Your task to perform on an android device: turn off smart reply in the gmail app Image 0: 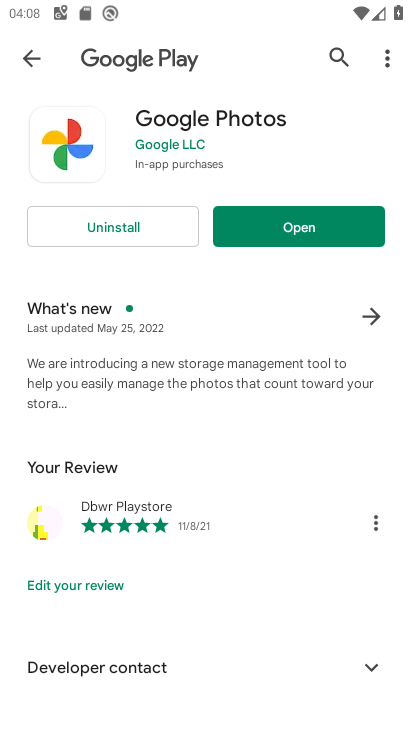
Step 0: press home button
Your task to perform on an android device: turn off smart reply in the gmail app Image 1: 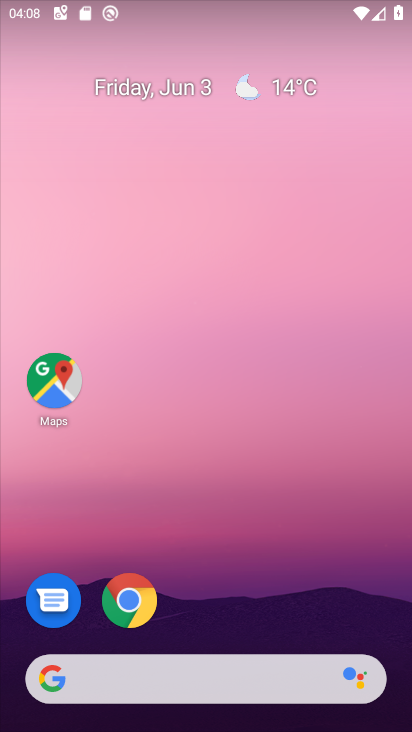
Step 1: drag from (255, 542) to (245, 67)
Your task to perform on an android device: turn off smart reply in the gmail app Image 2: 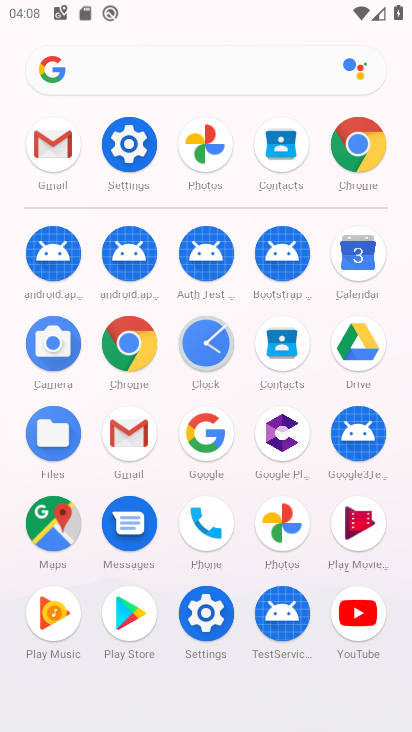
Step 2: click (60, 138)
Your task to perform on an android device: turn off smart reply in the gmail app Image 3: 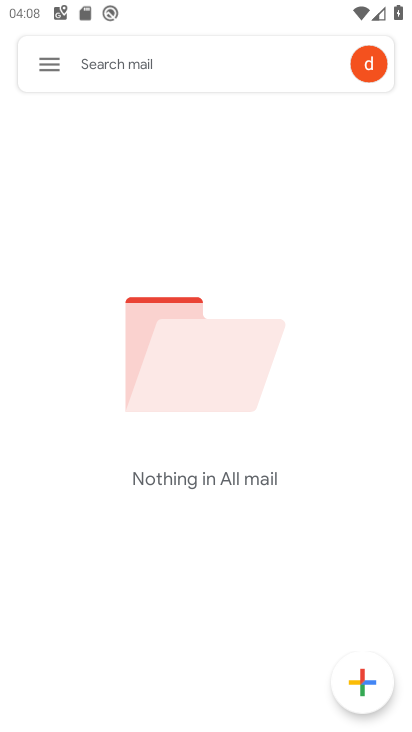
Step 3: click (50, 55)
Your task to perform on an android device: turn off smart reply in the gmail app Image 4: 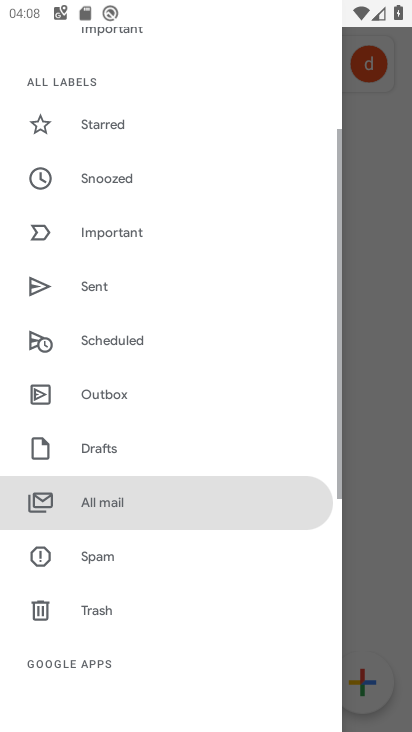
Step 4: drag from (138, 621) to (201, 244)
Your task to perform on an android device: turn off smart reply in the gmail app Image 5: 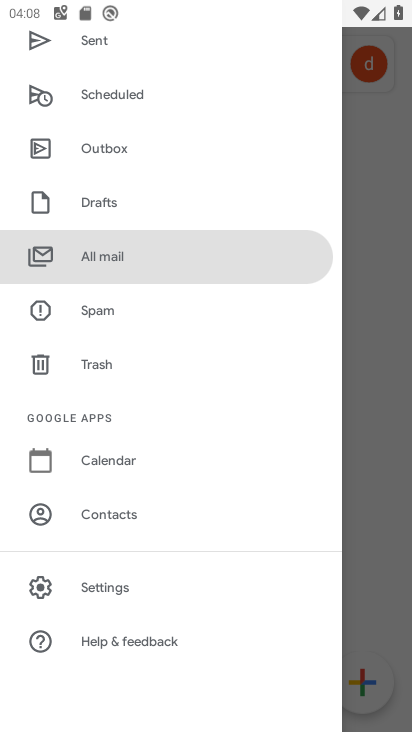
Step 5: click (111, 583)
Your task to perform on an android device: turn off smart reply in the gmail app Image 6: 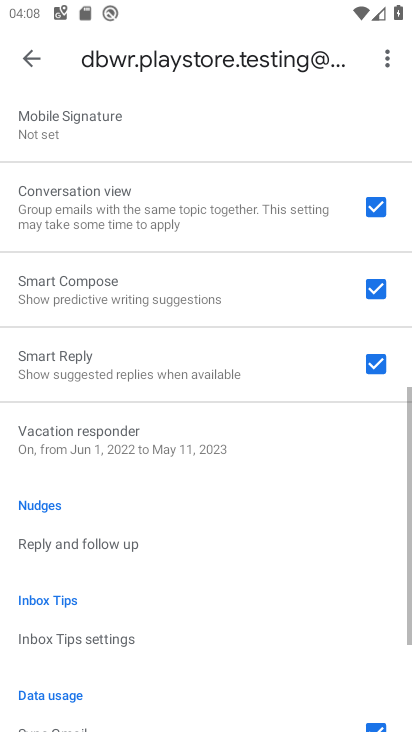
Step 6: drag from (184, 158) to (223, 298)
Your task to perform on an android device: turn off smart reply in the gmail app Image 7: 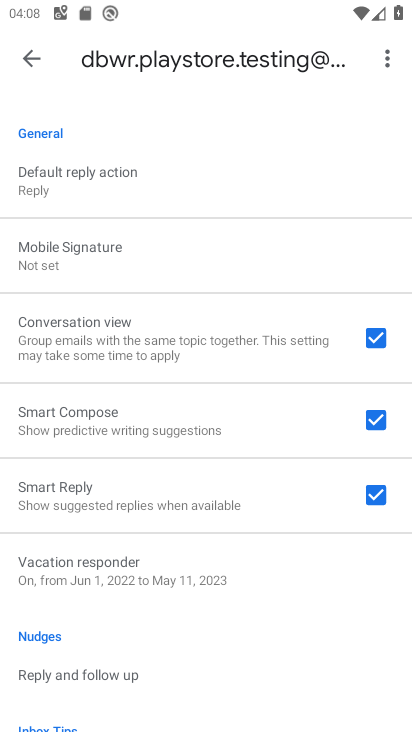
Step 7: click (372, 491)
Your task to perform on an android device: turn off smart reply in the gmail app Image 8: 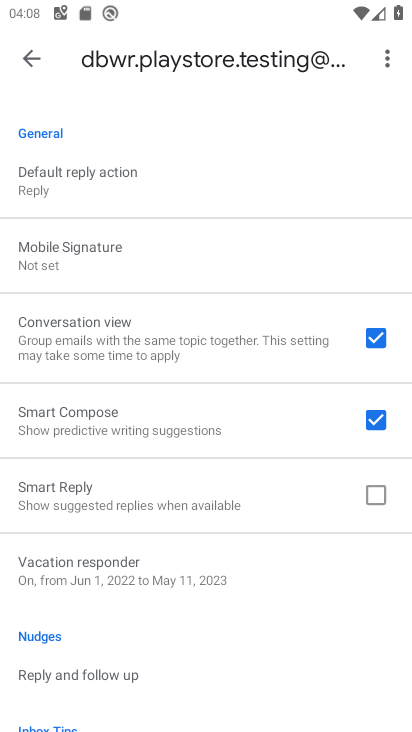
Step 8: task complete